Your task to perform on an android device: Show me the alarms in the clock app Image 0: 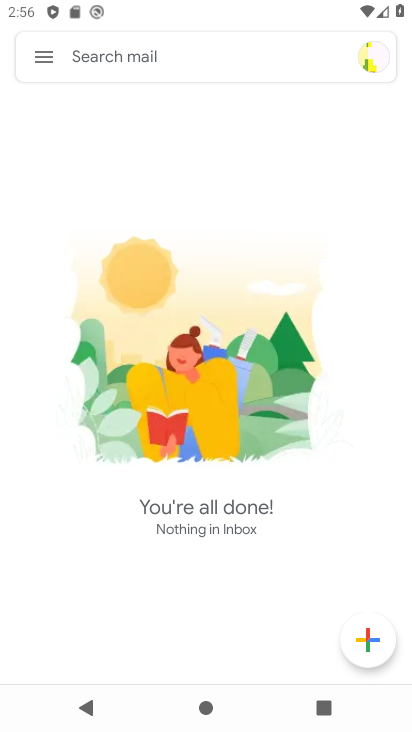
Step 0: press home button
Your task to perform on an android device: Show me the alarms in the clock app Image 1: 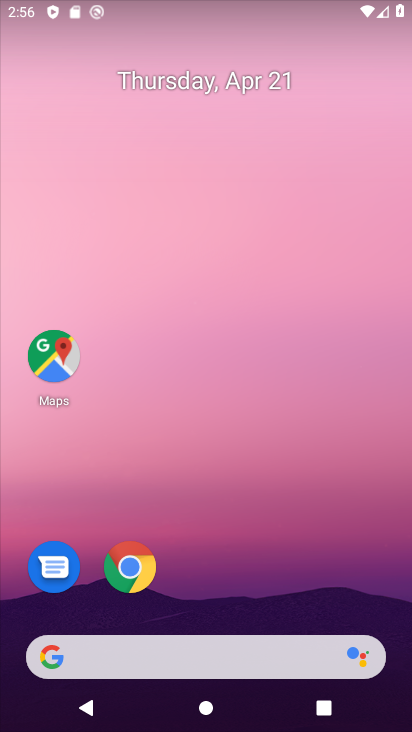
Step 1: drag from (274, 620) to (233, 188)
Your task to perform on an android device: Show me the alarms in the clock app Image 2: 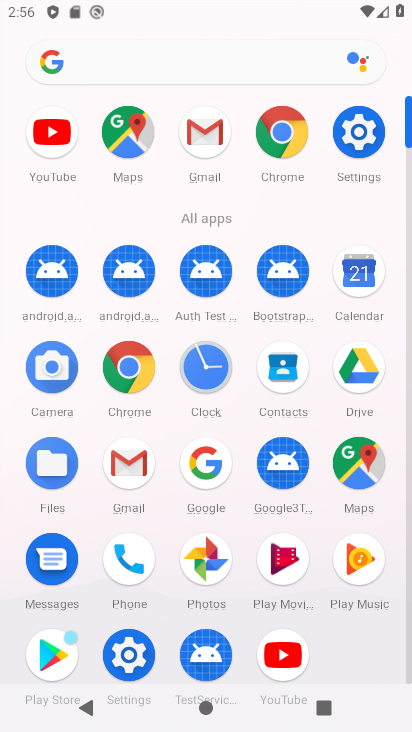
Step 2: click (189, 363)
Your task to perform on an android device: Show me the alarms in the clock app Image 3: 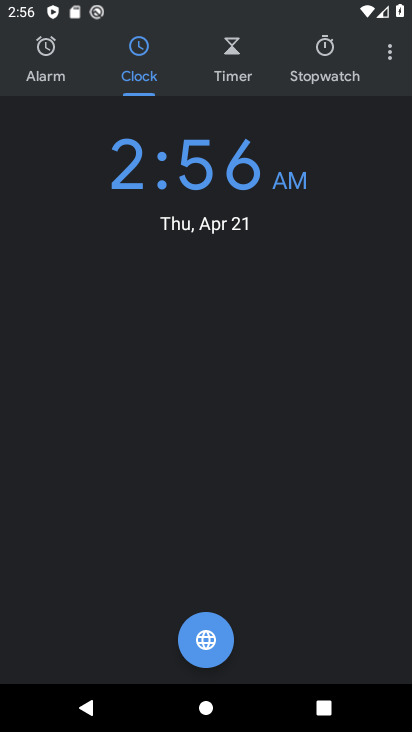
Step 3: click (43, 90)
Your task to perform on an android device: Show me the alarms in the clock app Image 4: 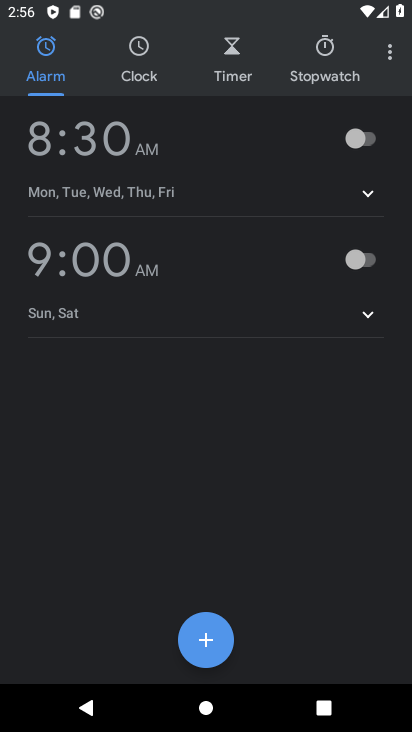
Step 4: task complete